Your task to perform on an android device: Go to accessibility settings Image 0: 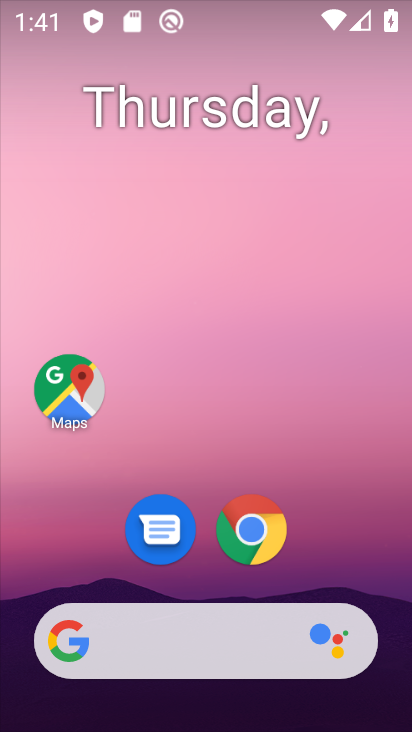
Step 0: drag from (213, 712) to (198, 118)
Your task to perform on an android device: Go to accessibility settings Image 1: 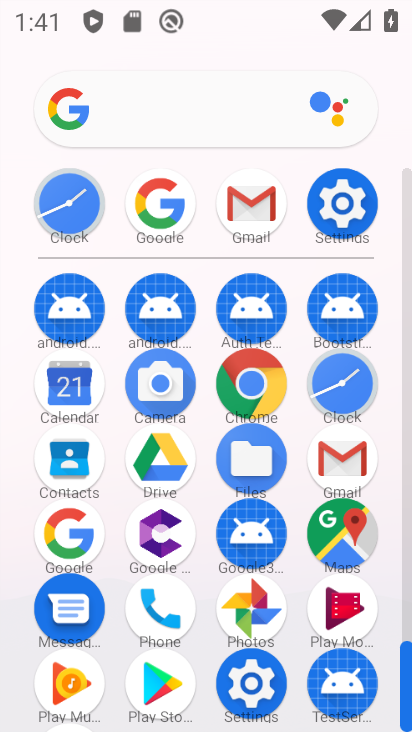
Step 1: click (337, 203)
Your task to perform on an android device: Go to accessibility settings Image 2: 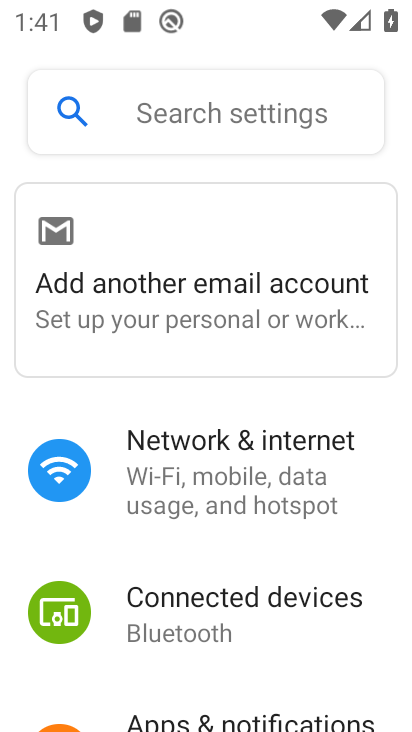
Step 2: drag from (255, 684) to (247, 258)
Your task to perform on an android device: Go to accessibility settings Image 3: 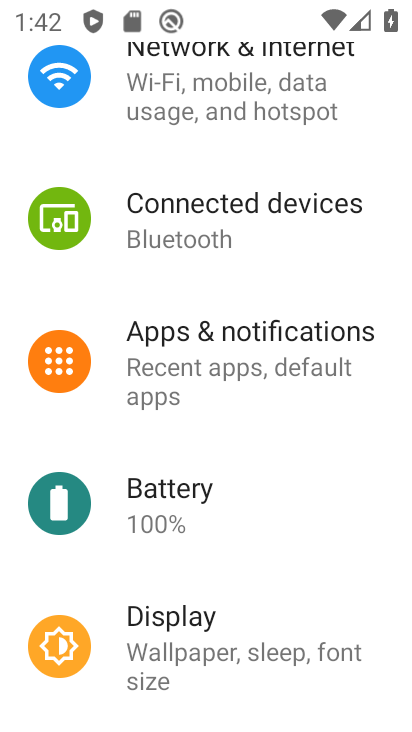
Step 3: drag from (206, 678) to (186, 243)
Your task to perform on an android device: Go to accessibility settings Image 4: 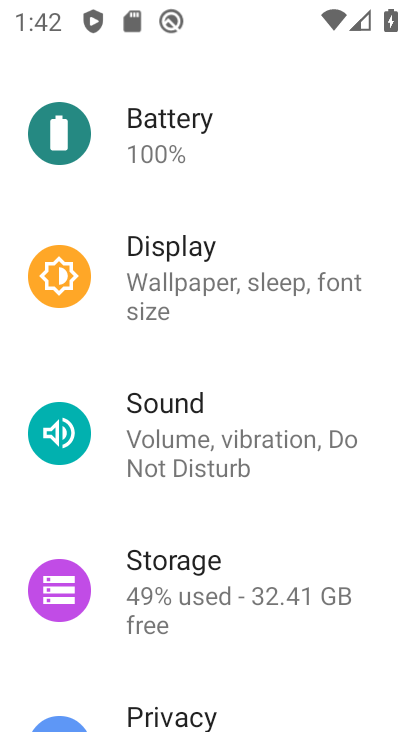
Step 4: drag from (210, 645) to (195, 279)
Your task to perform on an android device: Go to accessibility settings Image 5: 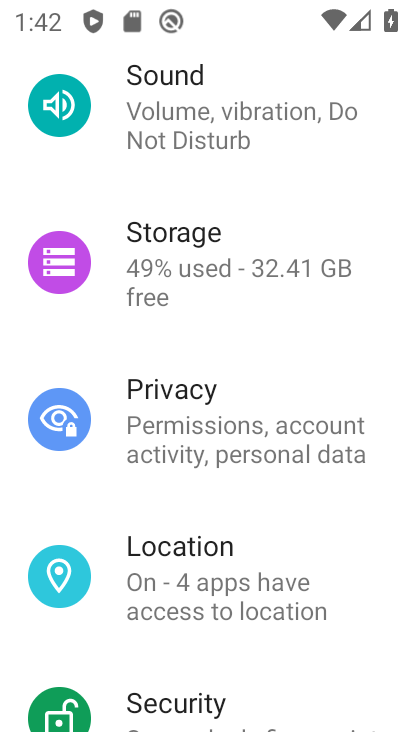
Step 5: drag from (193, 666) to (178, 222)
Your task to perform on an android device: Go to accessibility settings Image 6: 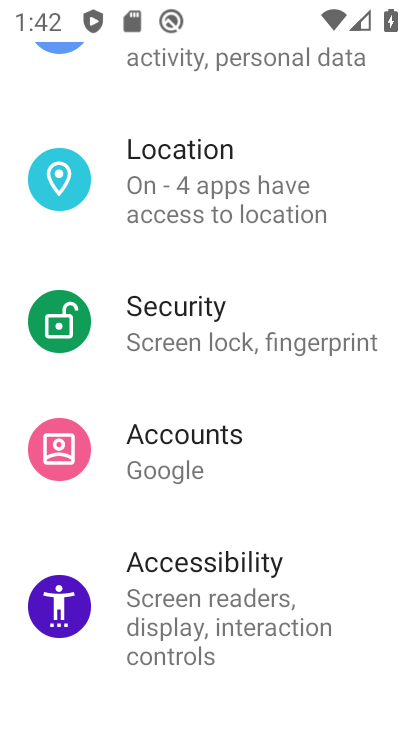
Step 6: click (204, 601)
Your task to perform on an android device: Go to accessibility settings Image 7: 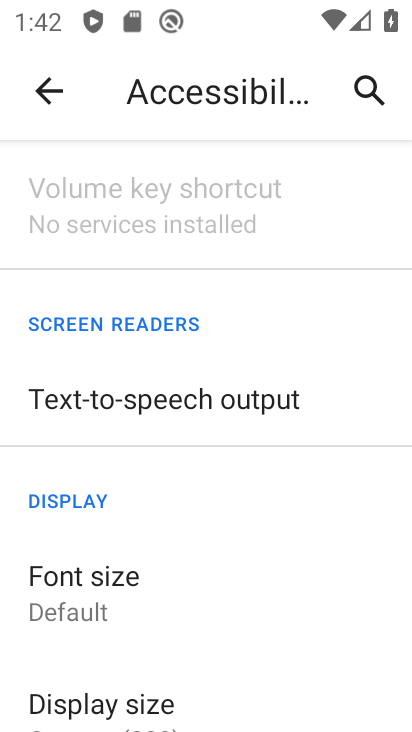
Step 7: task complete